Your task to perform on an android device: Open settings on Google Maps Image 0: 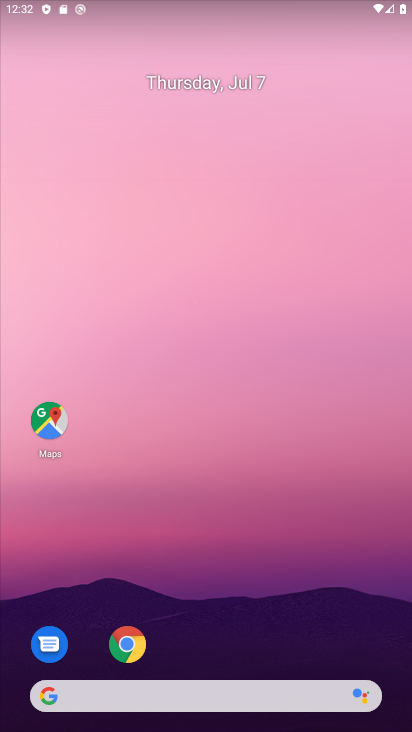
Step 0: click (48, 421)
Your task to perform on an android device: Open settings on Google Maps Image 1: 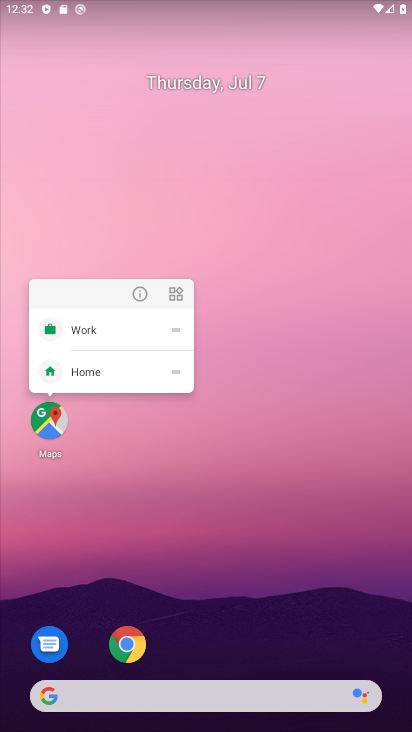
Step 1: click (49, 424)
Your task to perform on an android device: Open settings on Google Maps Image 2: 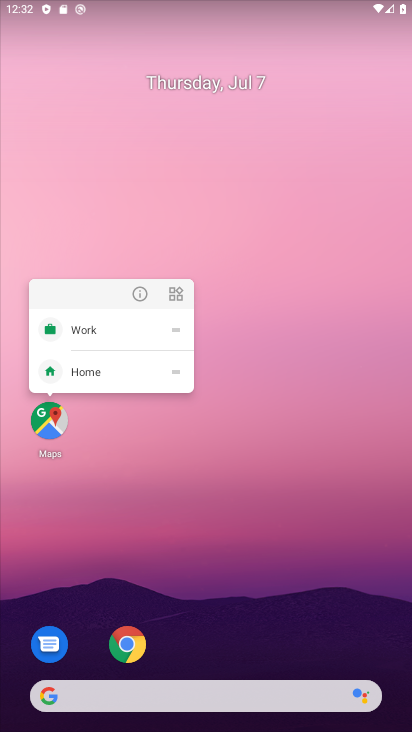
Step 2: click (50, 422)
Your task to perform on an android device: Open settings on Google Maps Image 3: 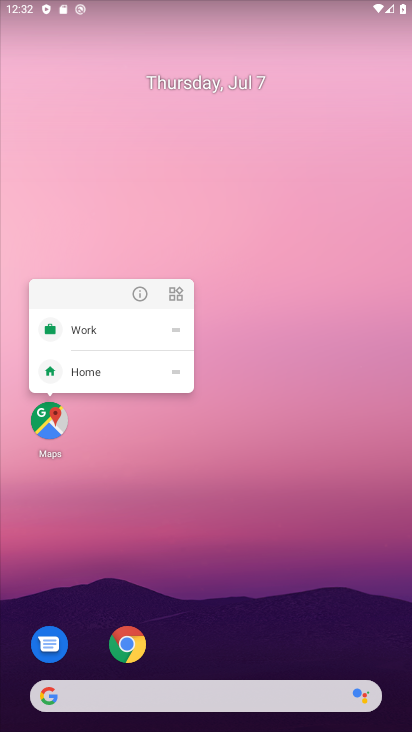
Step 3: click (29, 427)
Your task to perform on an android device: Open settings on Google Maps Image 4: 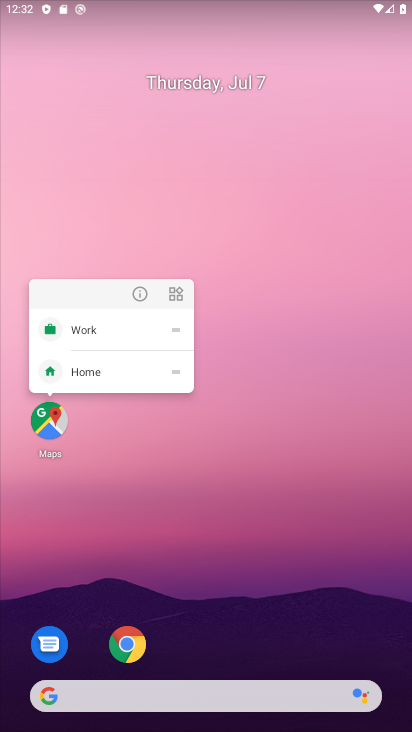
Step 4: click (53, 430)
Your task to perform on an android device: Open settings on Google Maps Image 5: 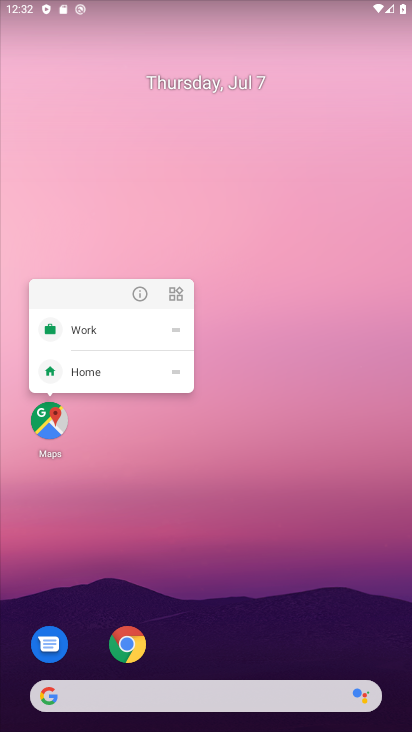
Step 5: click (53, 429)
Your task to perform on an android device: Open settings on Google Maps Image 6: 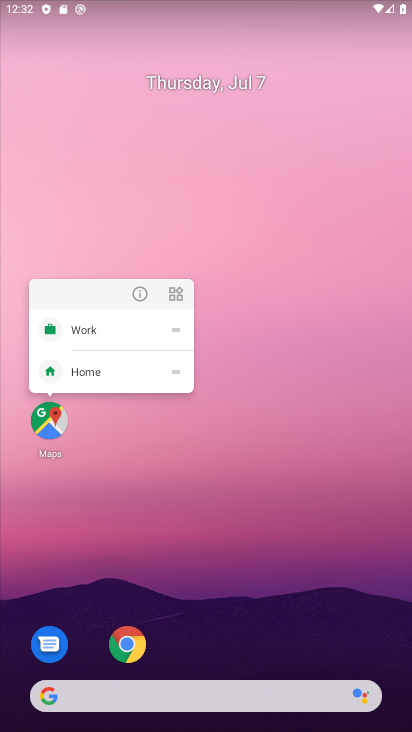
Step 6: click (51, 423)
Your task to perform on an android device: Open settings on Google Maps Image 7: 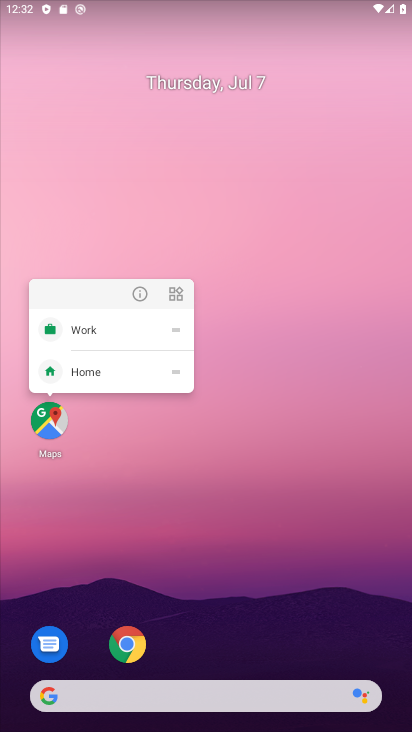
Step 7: click (51, 423)
Your task to perform on an android device: Open settings on Google Maps Image 8: 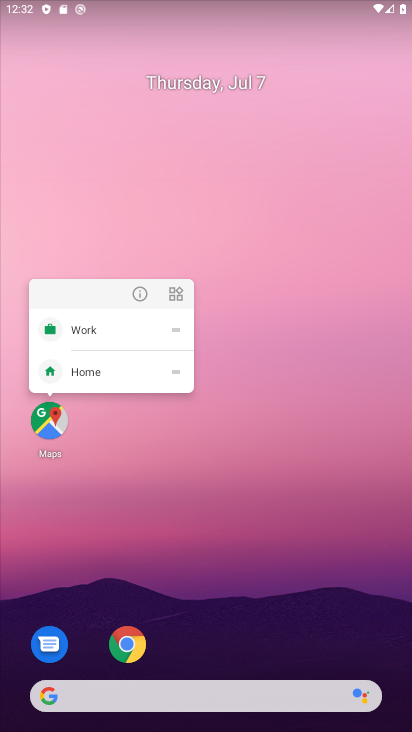
Step 8: click (53, 434)
Your task to perform on an android device: Open settings on Google Maps Image 9: 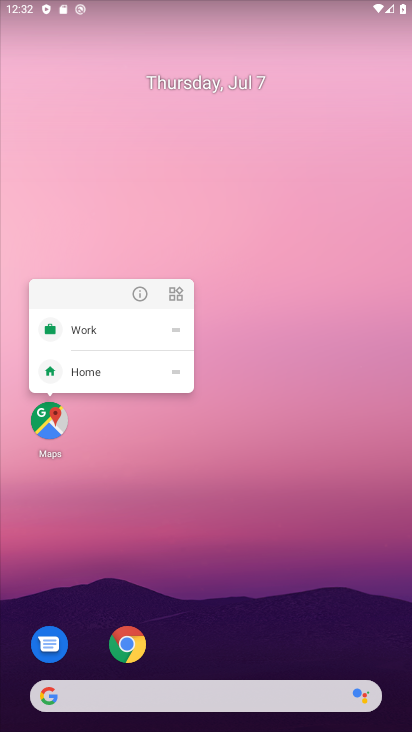
Step 9: click (40, 433)
Your task to perform on an android device: Open settings on Google Maps Image 10: 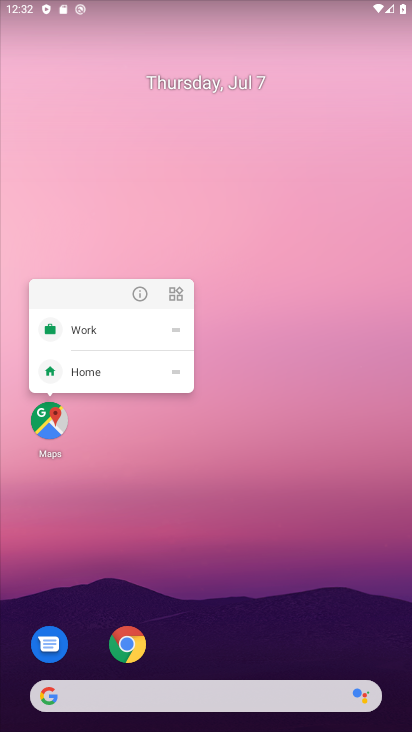
Step 10: task complete